Your task to perform on an android device: What's on my calendar tomorrow? Image 0: 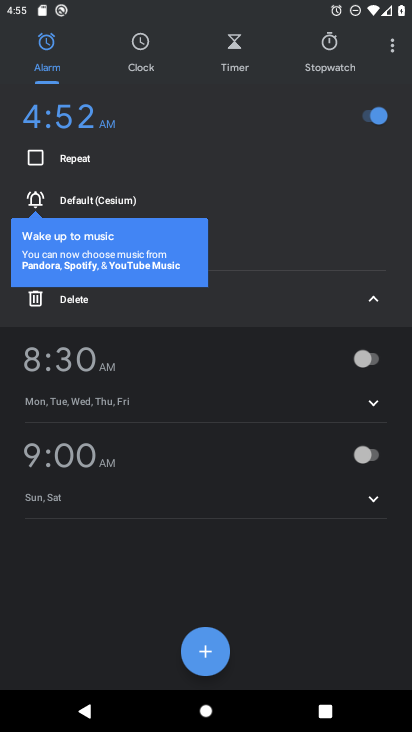
Step 0: press home button
Your task to perform on an android device: What's on my calendar tomorrow? Image 1: 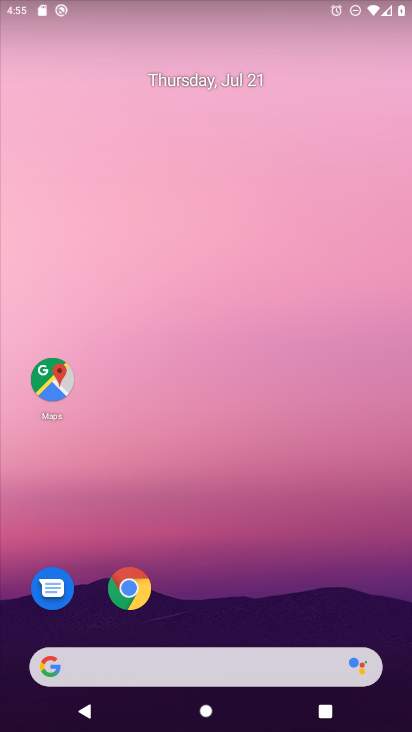
Step 1: drag from (394, 625) to (289, 58)
Your task to perform on an android device: What's on my calendar tomorrow? Image 2: 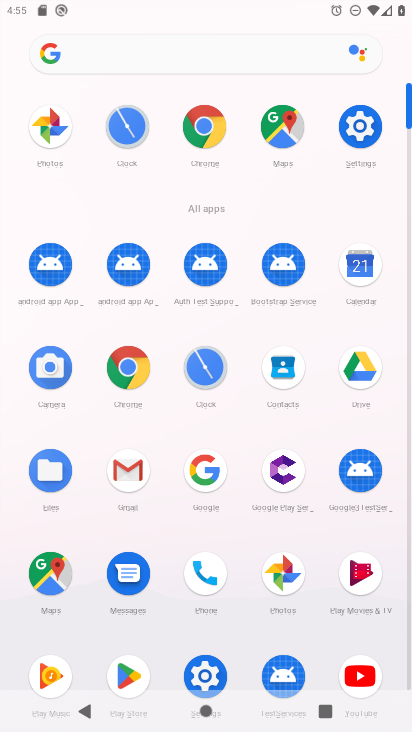
Step 2: click (366, 255)
Your task to perform on an android device: What's on my calendar tomorrow? Image 3: 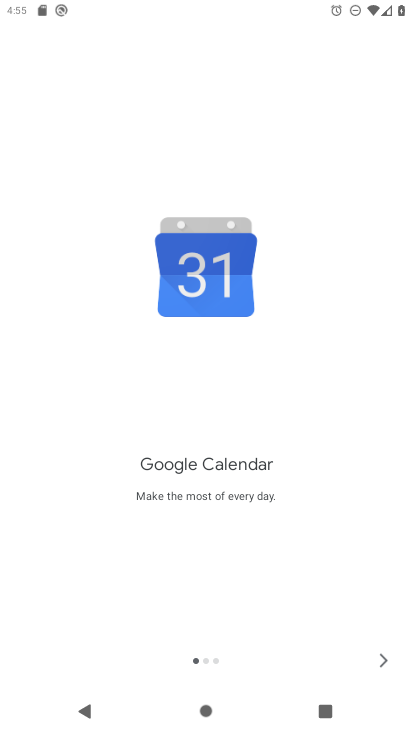
Step 3: click (383, 659)
Your task to perform on an android device: What's on my calendar tomorrow? Image 4: 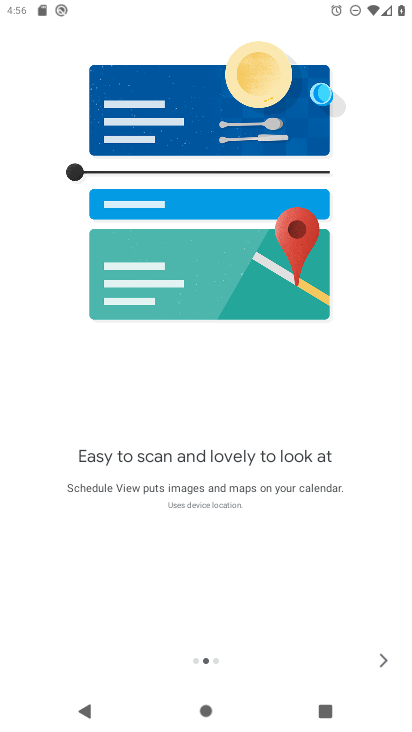
Step 4: click (382, 667)
Your task to perform on an android device: What's on my calendar tomorrow? Image 5: 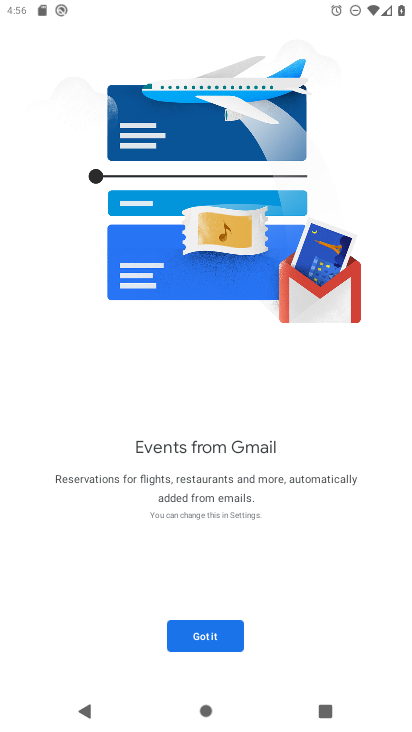
Step 5: click (225, 631)
Your task to perform on an android device: What's on my calendar tomorrow? Image 6: 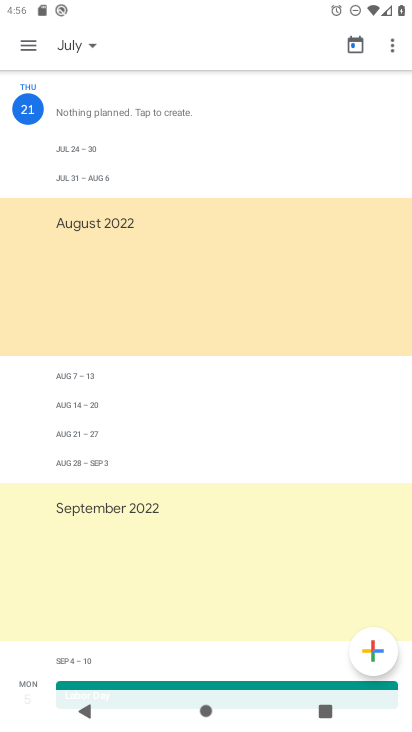
Step 6: click (25, 41)
Your task to perform on an android device: What's on my calendar tomorrow? Image 7: 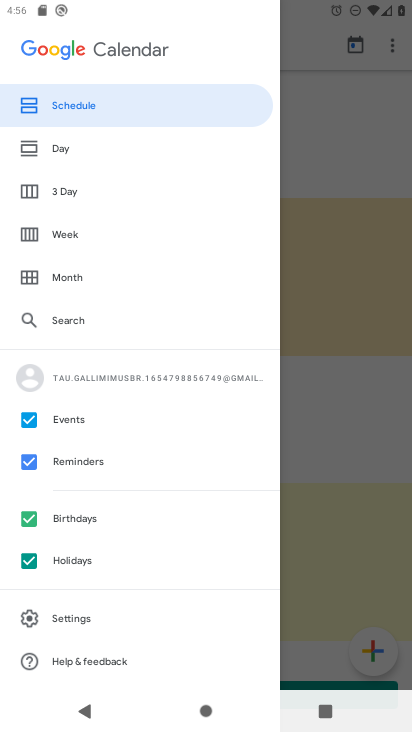
Step 7: click (59, 145)
Your task to perform on an android device: What's on my calendar tomorrow? Image 8: 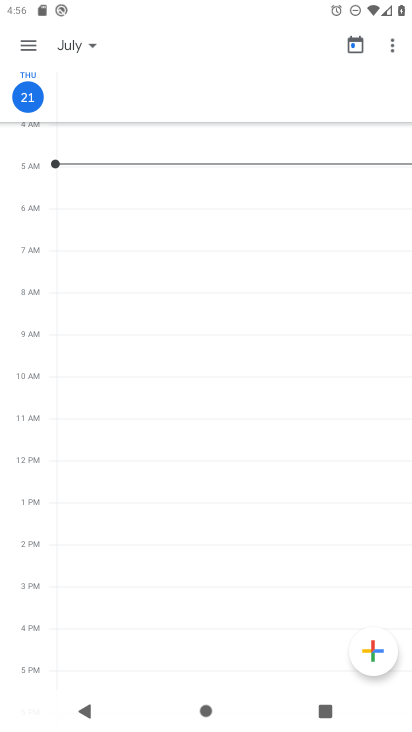
Step 8: task complete